Your task to perform on an android device: Go to location settings Image 0: 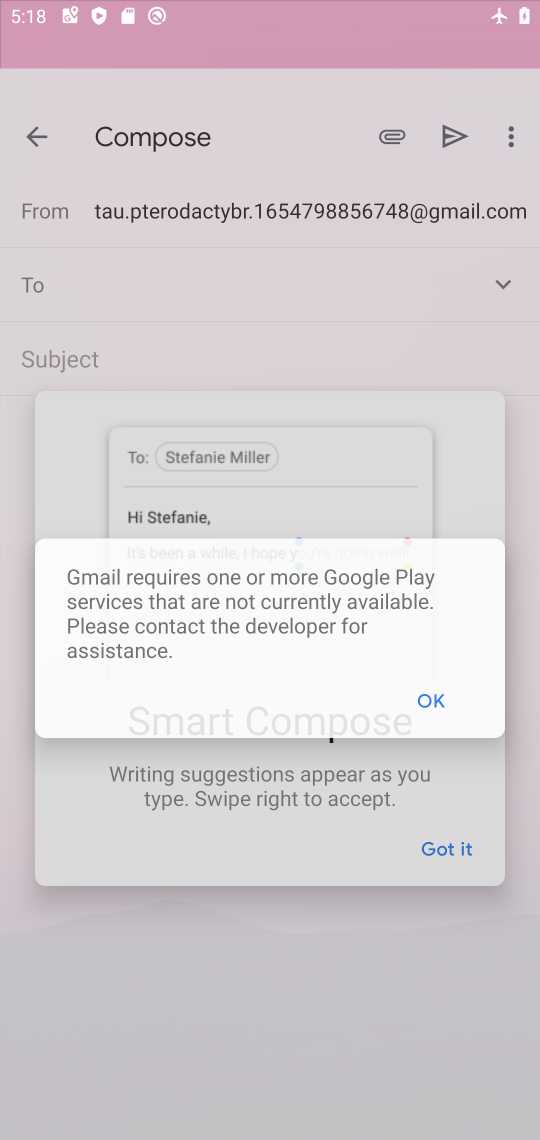
Step 0: press home button
Your task to perform on an android device: Go to location settings Image 1: 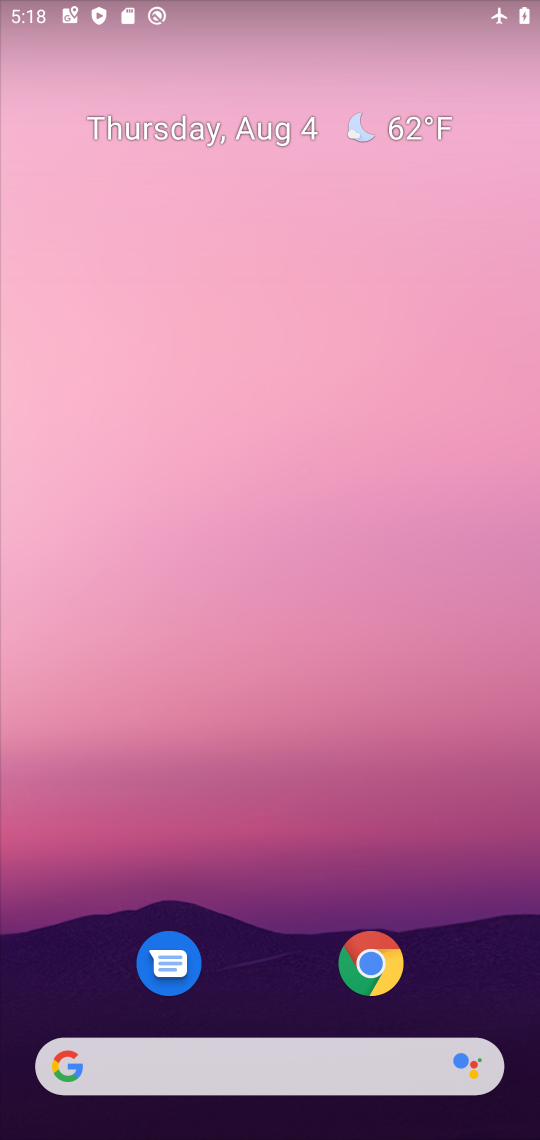
Step 1: drag from (272, 868) to (239, 154)
Your task to perform on an android device: Go to location settings Image 2: 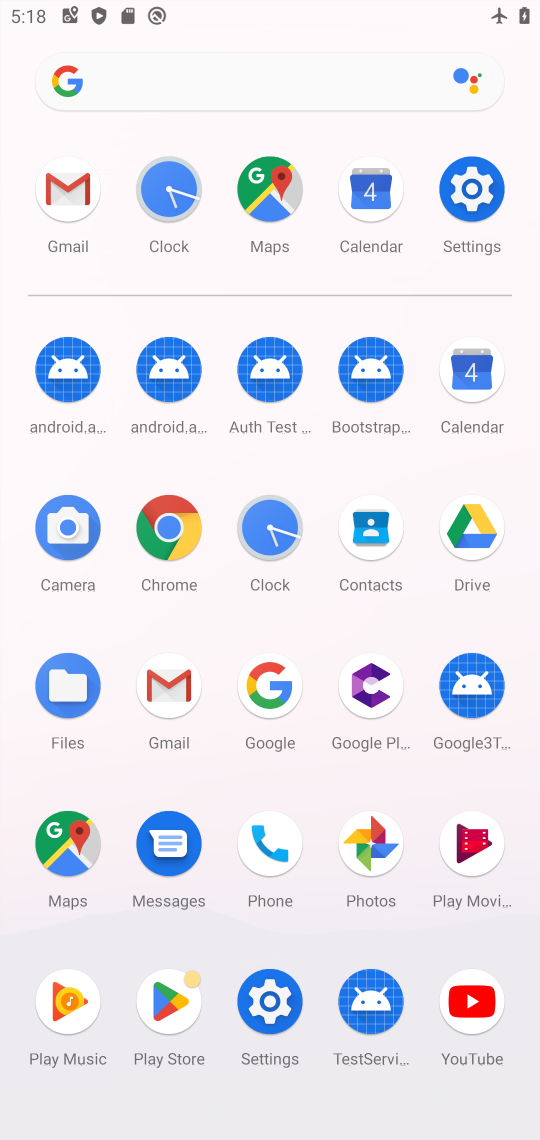
Step 2: click (479, 175)
Your task to perform on an android device: Go to location settings Image 3: 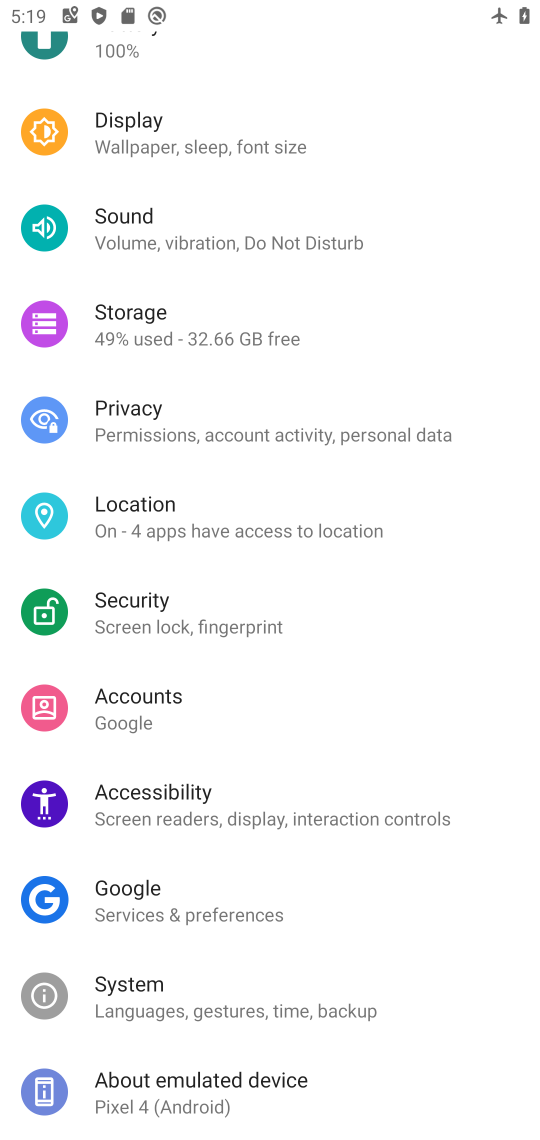
Step 3: click (146, 502)
Your task to perform on an android device: Go to location settings Image 4: 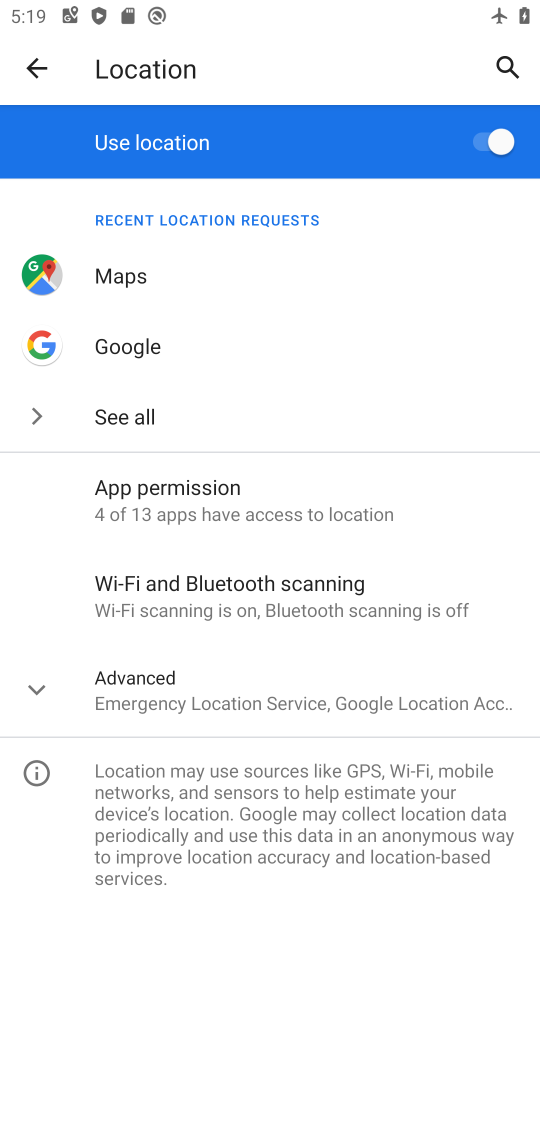
Step 4: task complete